Your task to perform on an android device: Go to notification settings Image 0: 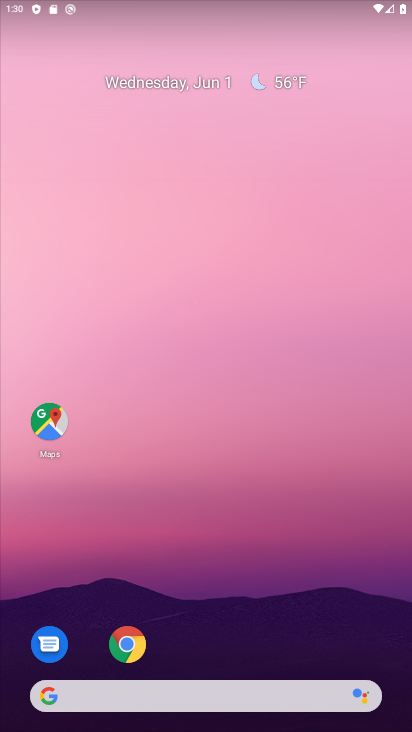
Step 0: drag from (289, 557) to (202, 0)
Your task to perform on an android device: Go to notification settings Image 1: 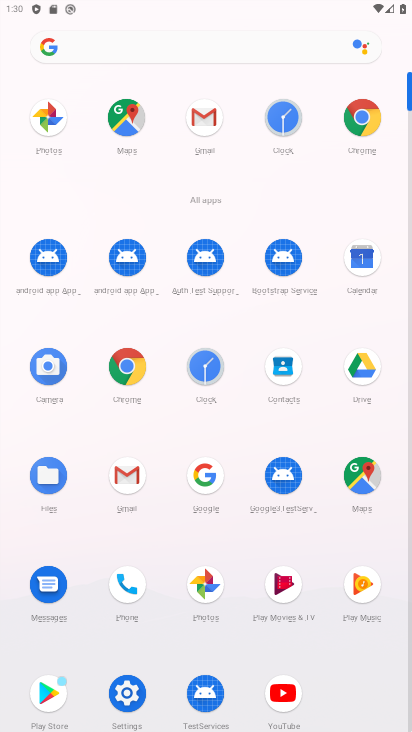
Step 1: drag from (9, 522) to (12, 199)
Your task to perform on an android device: Go to notification settings Image 2: 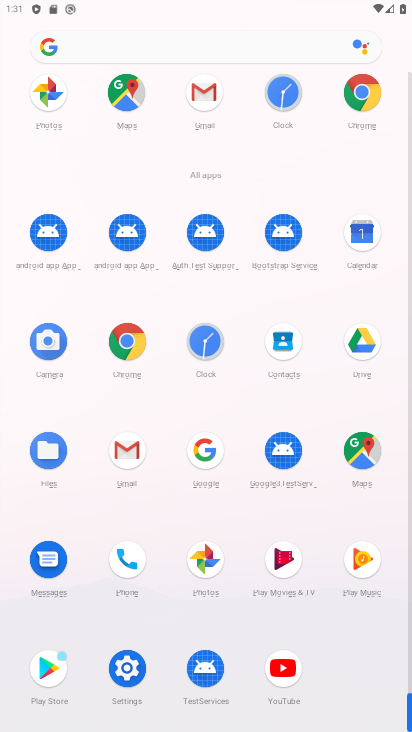
Step 2: click (124, 668)
Your task to perform on an android device: Go to notification settings Image 3: 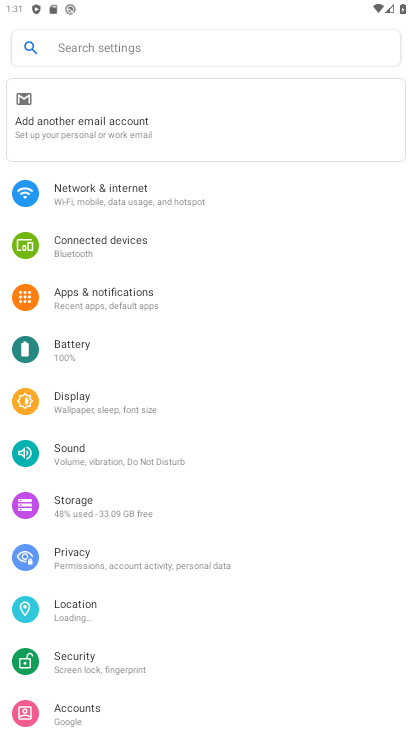
Step 3: drag from (265, 531) to (241, 91)
Your task to perform on an android device: Go to notification settings Image 4: 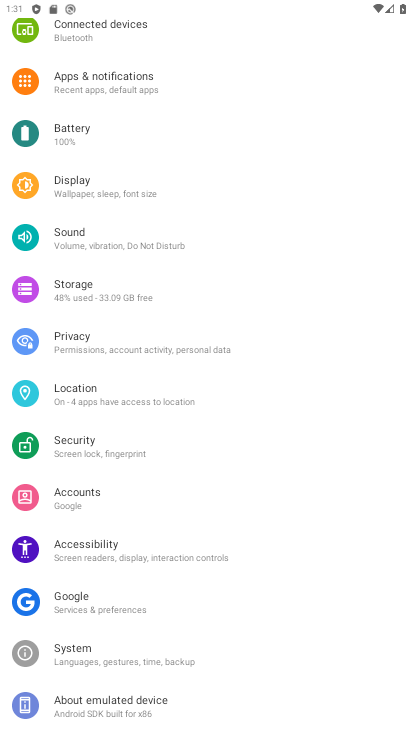
Step 4: drag from (335, 608) to (262, 127)
Your task to perform on an android device: Go to notification settings Image 5: 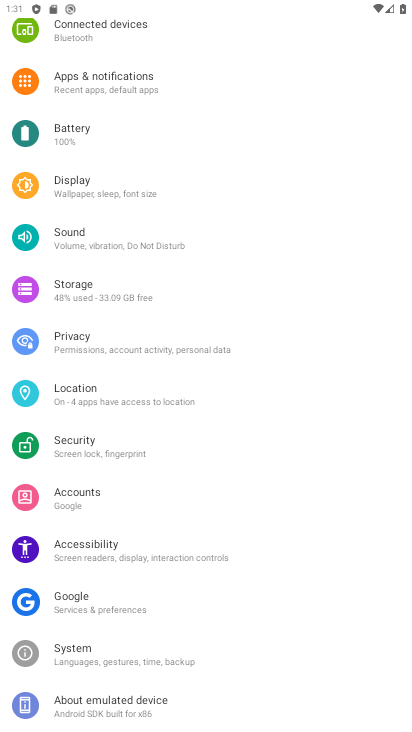
Step 5: drag from (200, 507) to (226, 154)
Your task to perform on an android device: Go to notification settings Image 6: 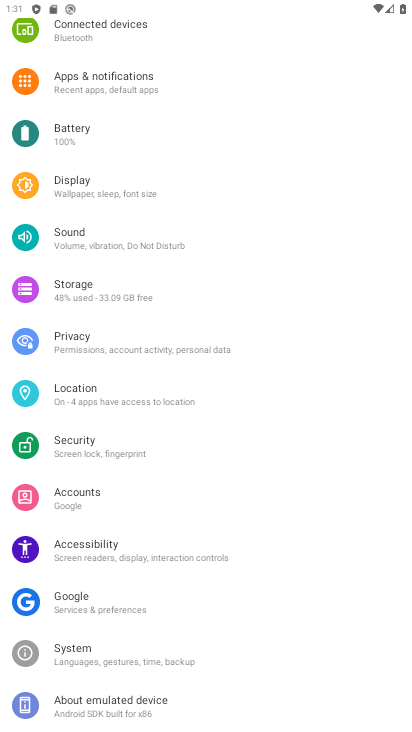
Step 6: click (143, 74)
Your task to perform on an android device: Go to notification settings Image 7: 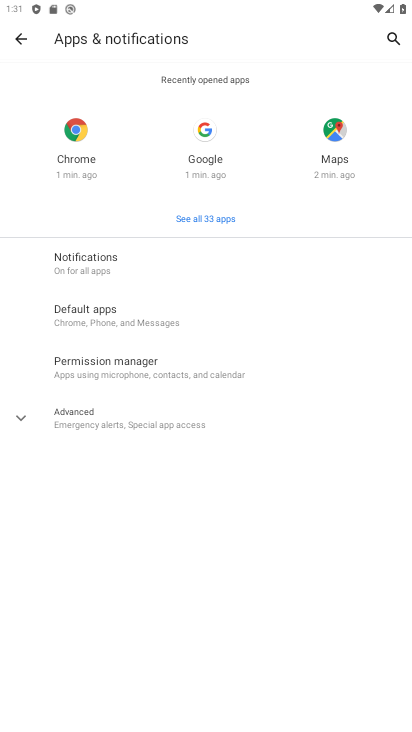
Step 7: click (22, 420)
Your task to perform on an android device: Go to notification settings Image 8: 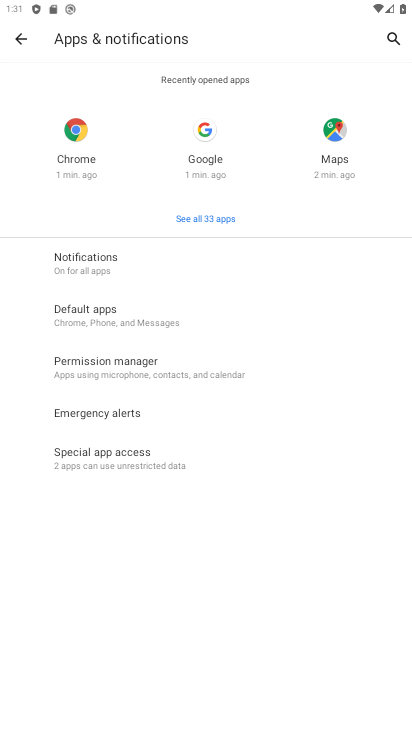
Step 8: click (144, 256)
Your task to perform on an android device: Go to notification settings Image 9: 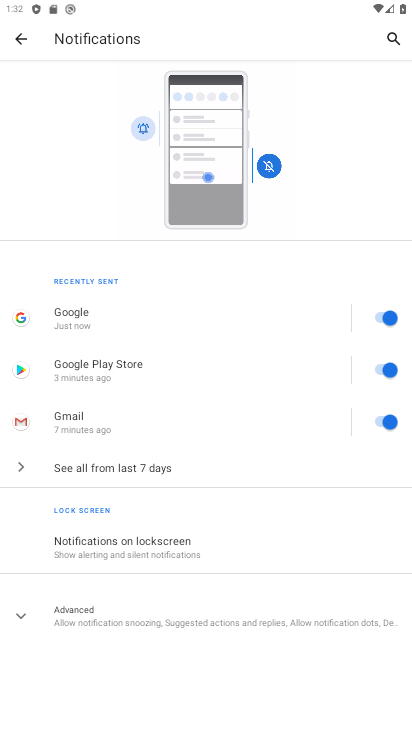
Step 9: drag from (204, 549) to (186, 169)
Your task to perform on an android device: Go to notification settings Image 10: 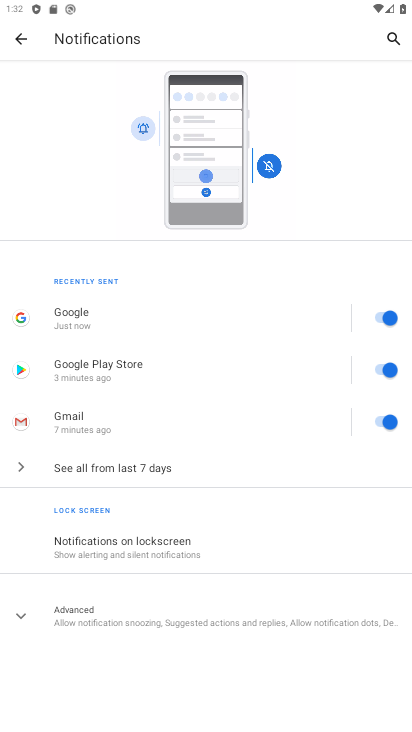
Step 10: click (24, 609)
Your task to perform on an android device: Go to notification settings Image 11: 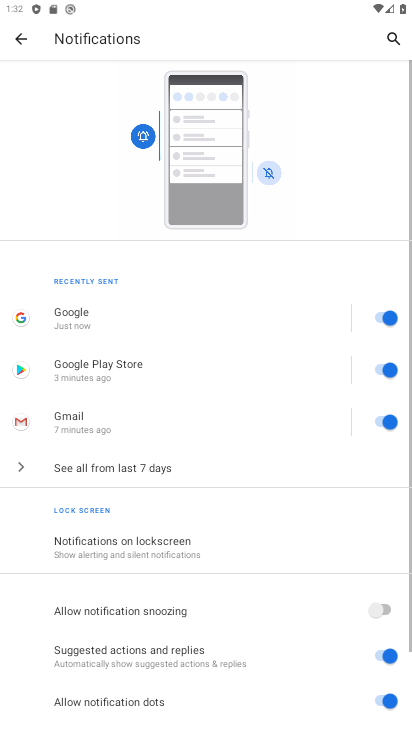
Step 11: task complete